Your task to perform on an android device: turn smart compose on in the gmail app Image 0: 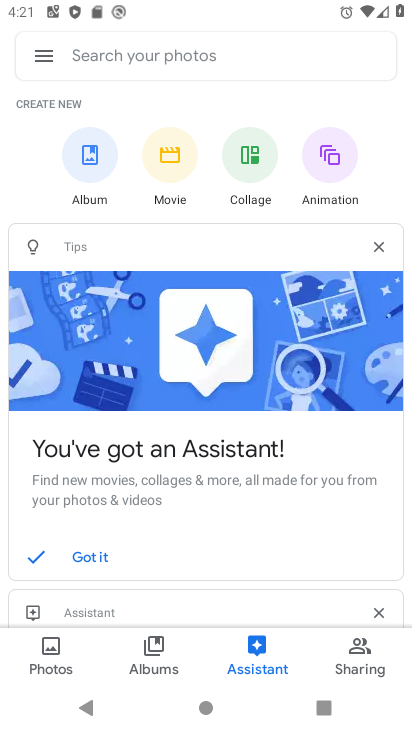
Step 0: press home button
Your task to perform on an android device: turn smart compose on in the gmail app Image 1: 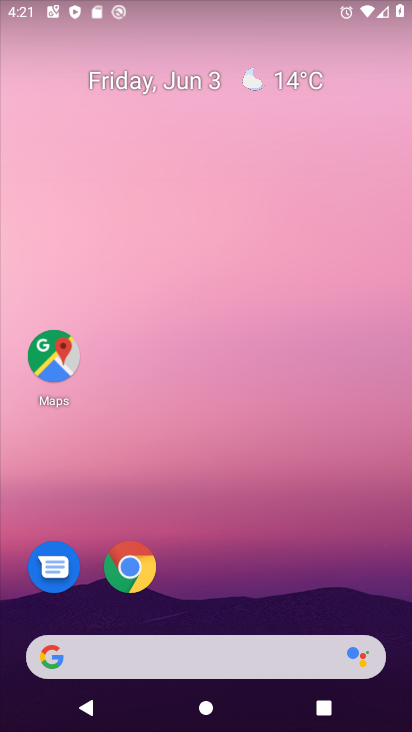
Step 1: drag from (186, 694) to (134, 179)
Your task to perform on an android device: turn smart compose on in the gmail app Image 2: 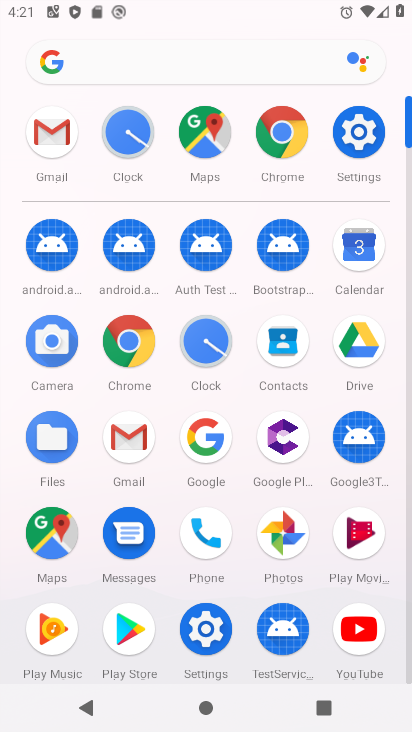
Step 2: click (144, 463)
Your task to perform on an android device: turn smart compose on in the gmail app Image 3: 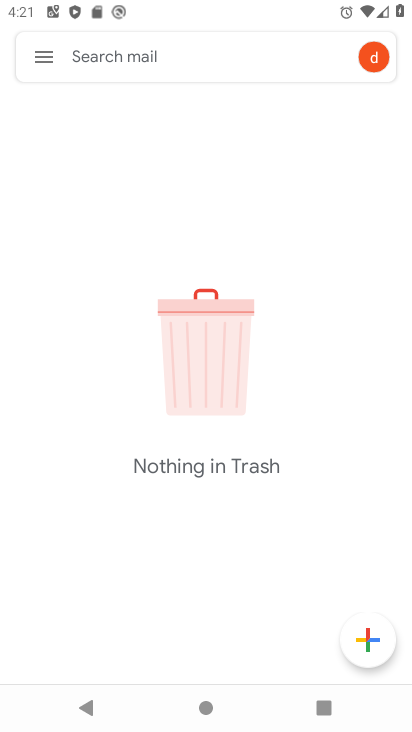
Step 3: click (28, 60)
Your task to perform on an android device: turn smart compose on in the gmail app Image 4: 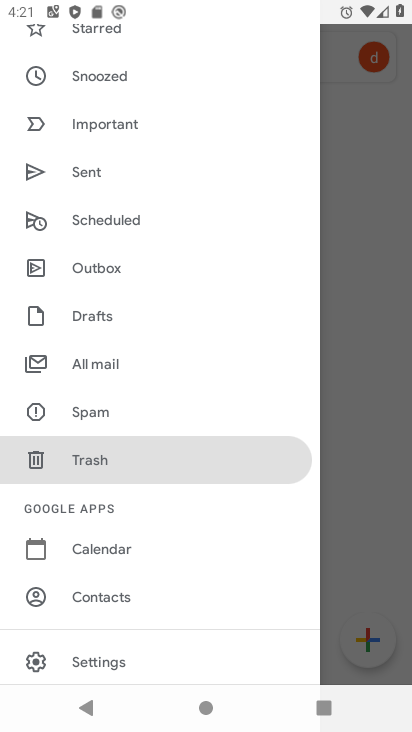
Step 4: click (94, 659)
Your task to perform on an android device: turn smart compose on in the gmail app Image 5: 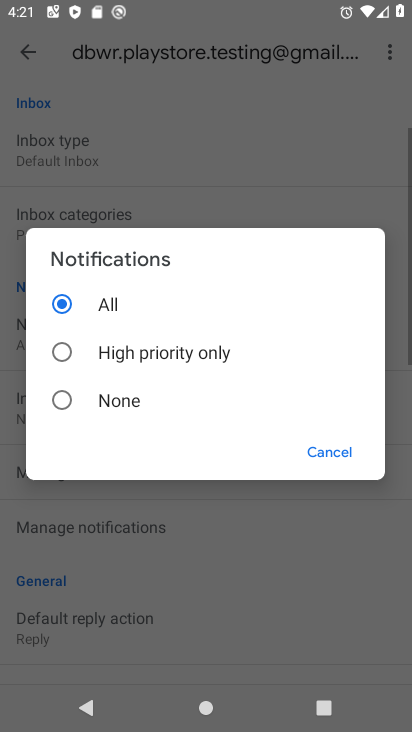
Step 5: click (327, 444)
Your task to perform on an android device: turn smart compose on in the gmail app Image 6: 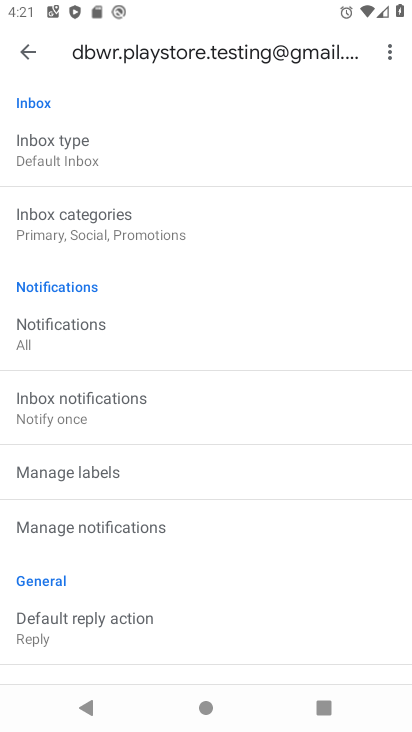
Step 6: drag from (156, 616) to (157, 339)
Your task to perform on an android device: turn smart compose on in the gmail app Image 7: 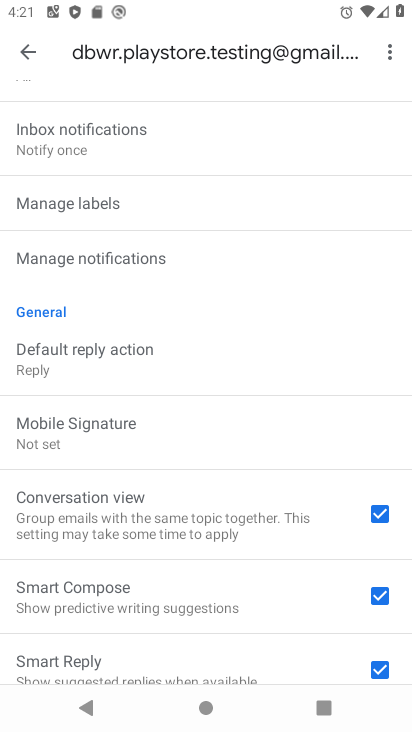
Step 7: click (383, 601)
Your task to perform on an android device: turn smart compose on in the gmail app Image 8: 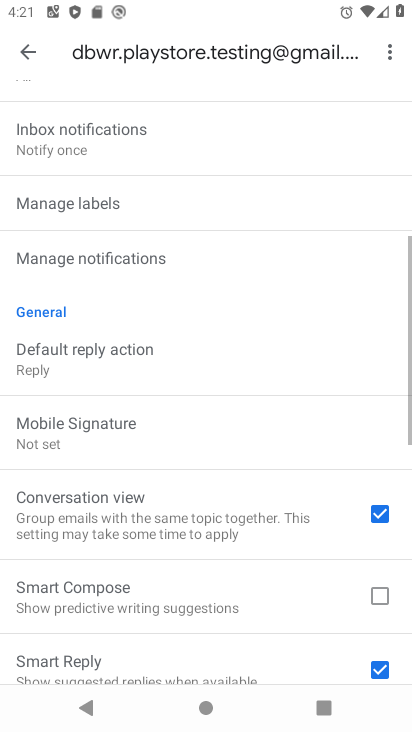
Step 8: click (383, 601)
Your task to perform on an android device: turn smart compose on in the gmail app Image 9: 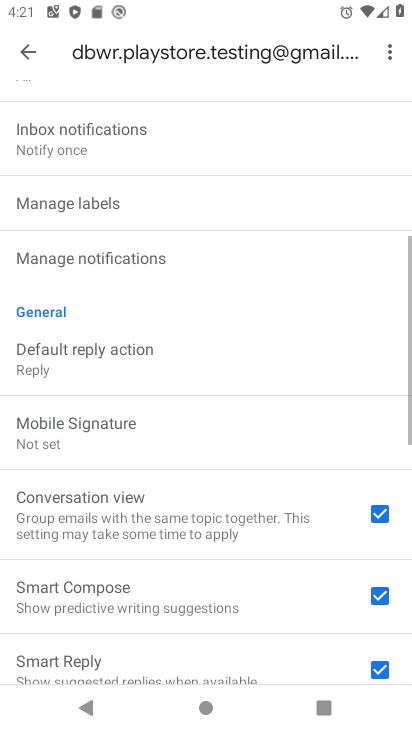
Step 9: task complete